Your task to perform on an android device: change your default location settings in chrome Image 0: 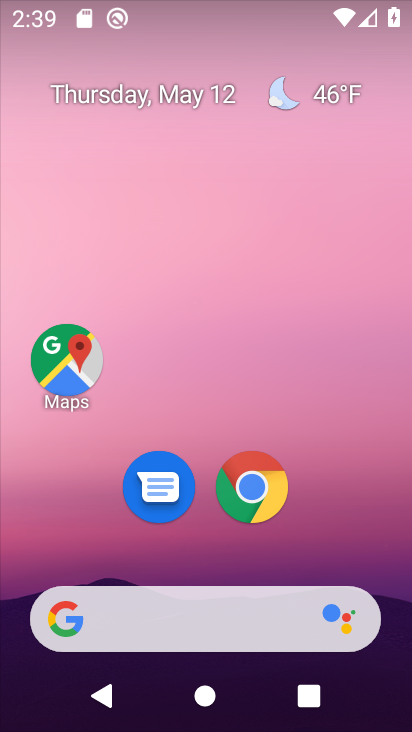
Step 0: click (243, 475)
Your task to perform on an android device: change your default location settings in chrome Image 1: 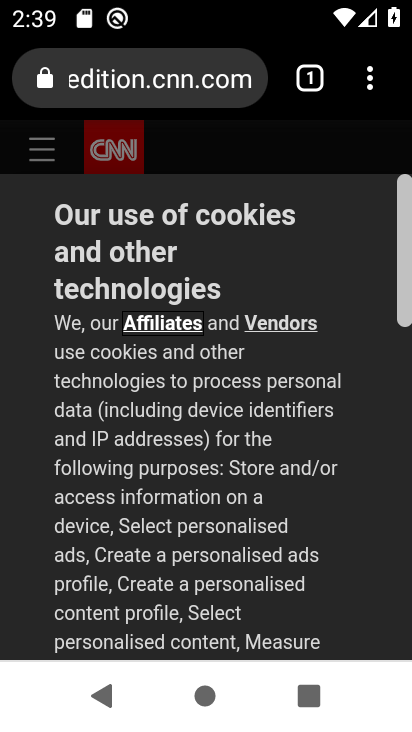
Step 1: click (364, 86)
Your task to perform on an android device: change your default location settings in chrome Image 2: 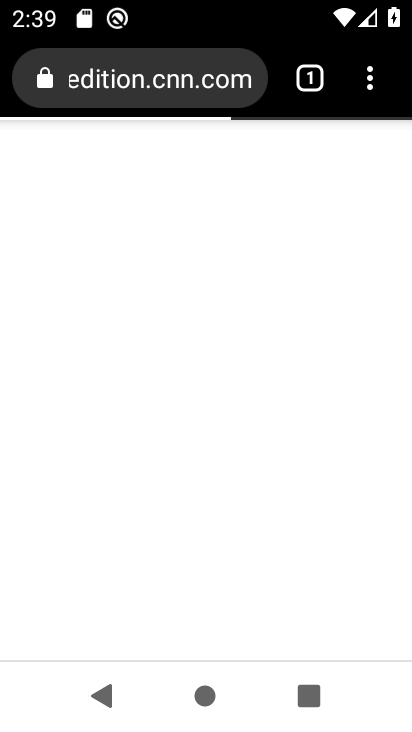
Step 2: click (369, 94)
Your task to perform on an android device: change your default location settings in chrome Image 3: 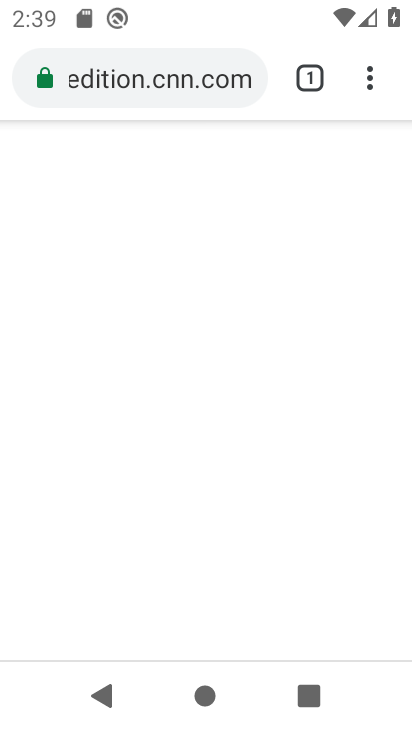
Step 3: click (369, 93)
Your task to perform on an android device: change your default location settings in chrome Image 4: 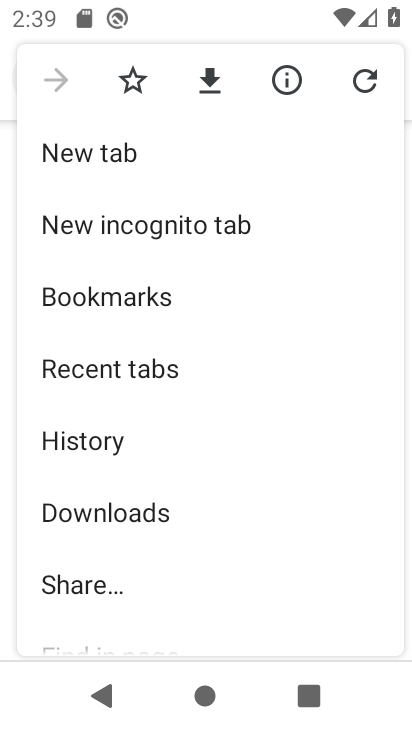
Step 4: drag from (118, 534) to (84, 241)
Your task to perform on an android device: change your default location settings in chrome Image 5: 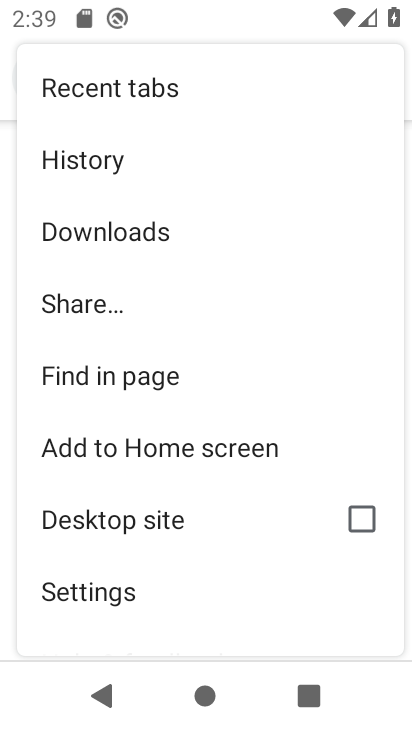
Step 5: click (111, 593)
Your task to perform on an android device: change your default location settings in chrome Image 6: 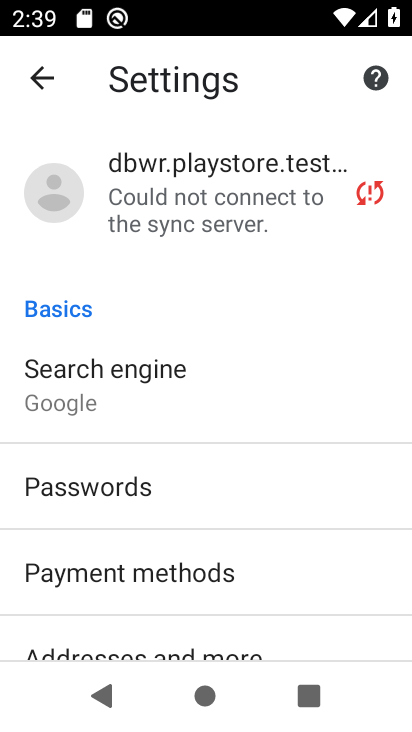
Step 6: drag from (120, 594) to (60, 224)
Your task to perform on an android device: change your default location settings in chrome Image 7: 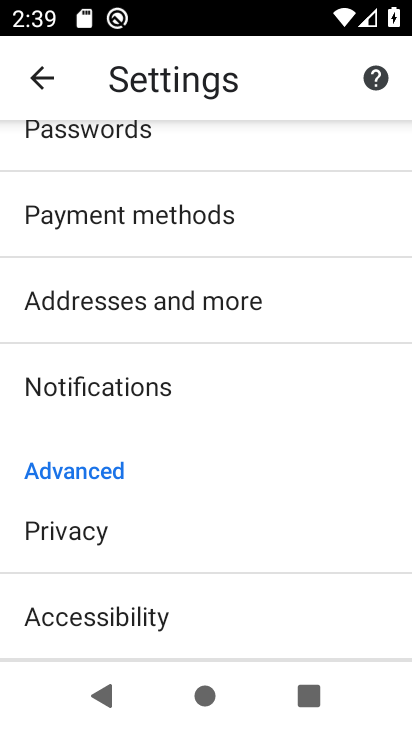
Step 7: drag from (137, 587) to (154, 329)
Your task to perform on an android device: change your default location settings in chrome Image 8: 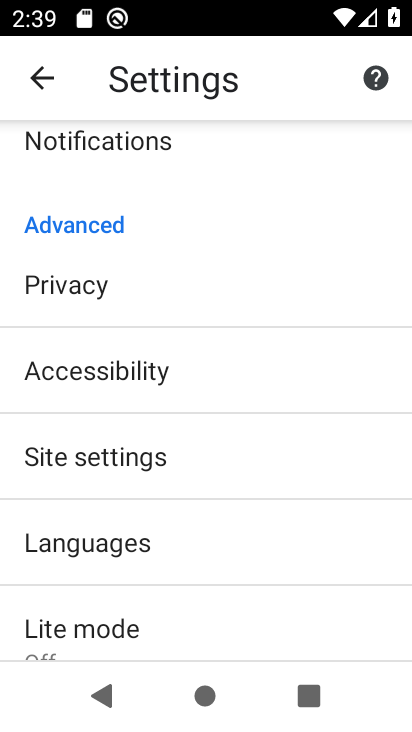
Step 8: click (130, 471)
Your task to perform on an android device: change your default location settings in chrome Image 9: 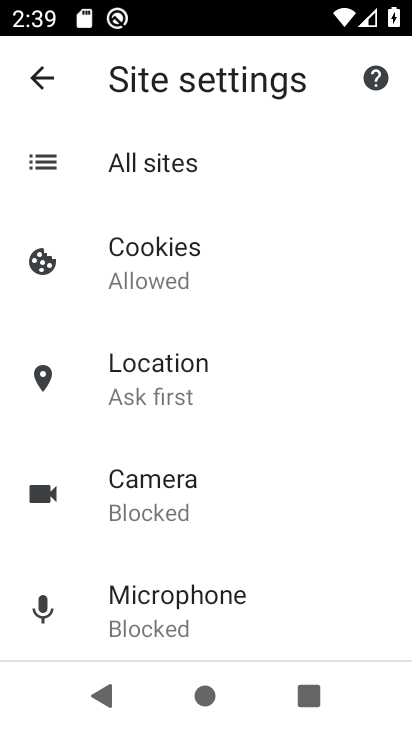
Step 9: click (174, 392)
Your task to perform on an android device: change your default location settings in chrome Image 10: 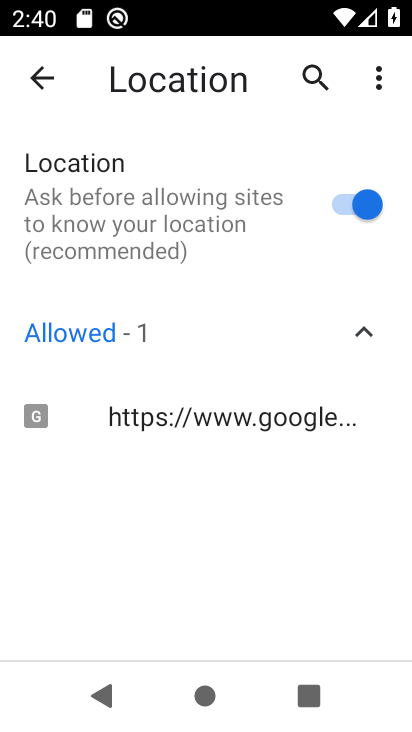
Step 10: click (340, 202)
Your task to perform on an android device: change your default location settings in chrome Image 11: 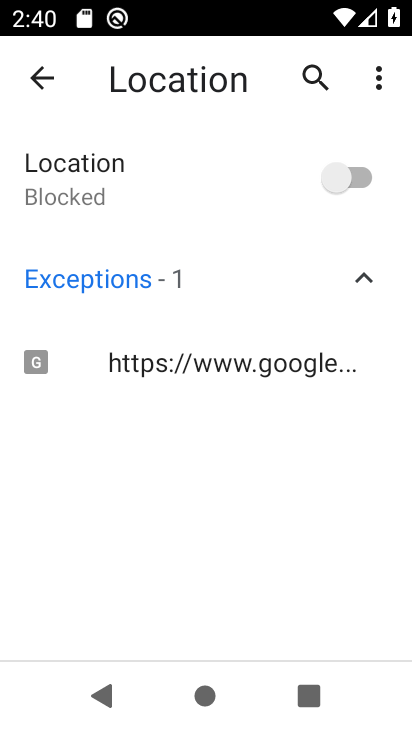
Step 11: task complete